Your task to perform on an android device: find snoozed emails in the gmail app Image 0: 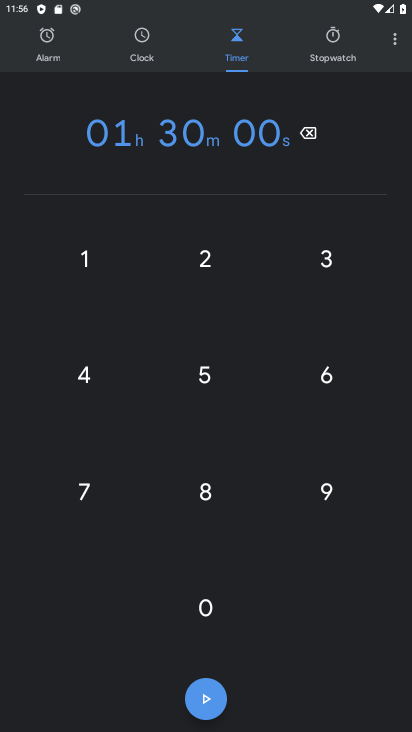
Step 0: press home button
Your task to perform on an android device: find snoozed emails in the gmail app Image 1: 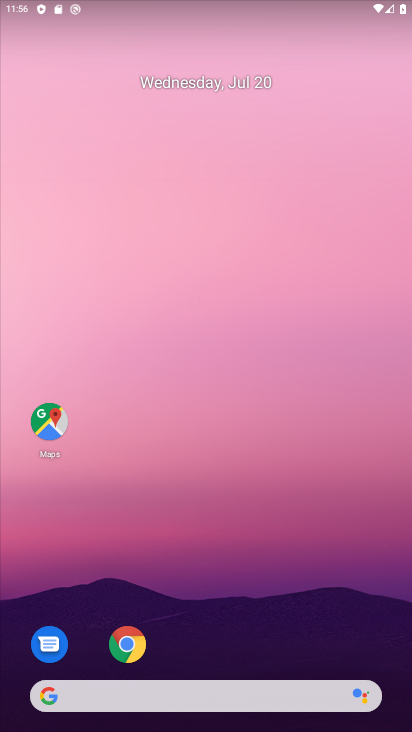
Step 1: drag from (373, 639) to (270, 109)
Your task to perform on an android device: find snoozed emails in the gmail app Image 2: 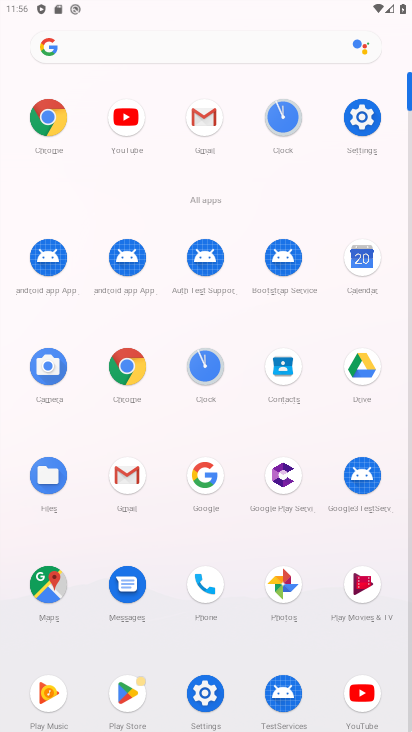
Step 2: click (126, 473)
Your task to perform on an android device: find snoozed emails in the gmail app Image 3: 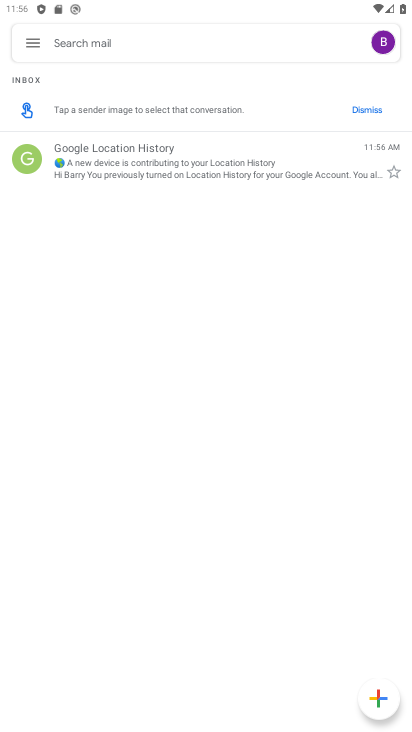
Step 3: click (27, 42)
Your task to perform on an android device: find snoozed emails in the gmail app Image 4: 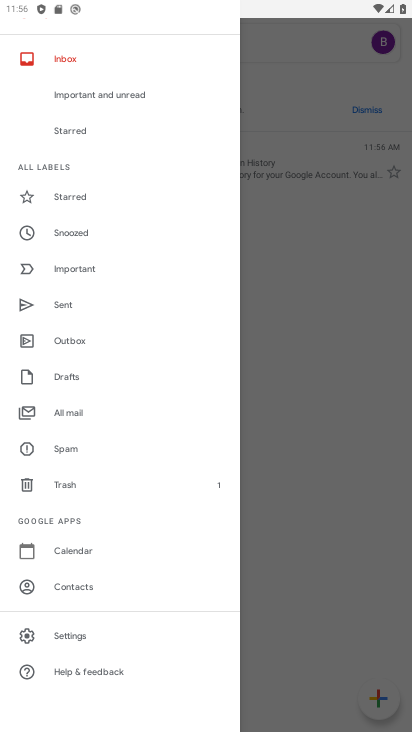
Step 4: click (71, 231)
Your task to perform on an android device: find snoozed emails in the gmail app Image 5: 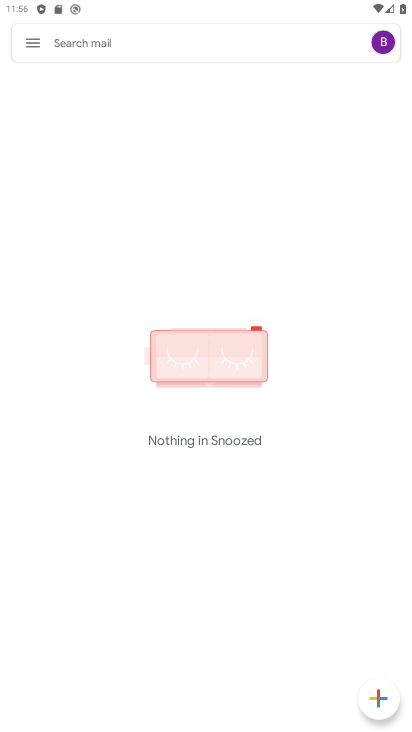
Step 5: task complete